Your task to perform on an android device: open app "Expedia: Hotels, Flights & Car" Image 0: 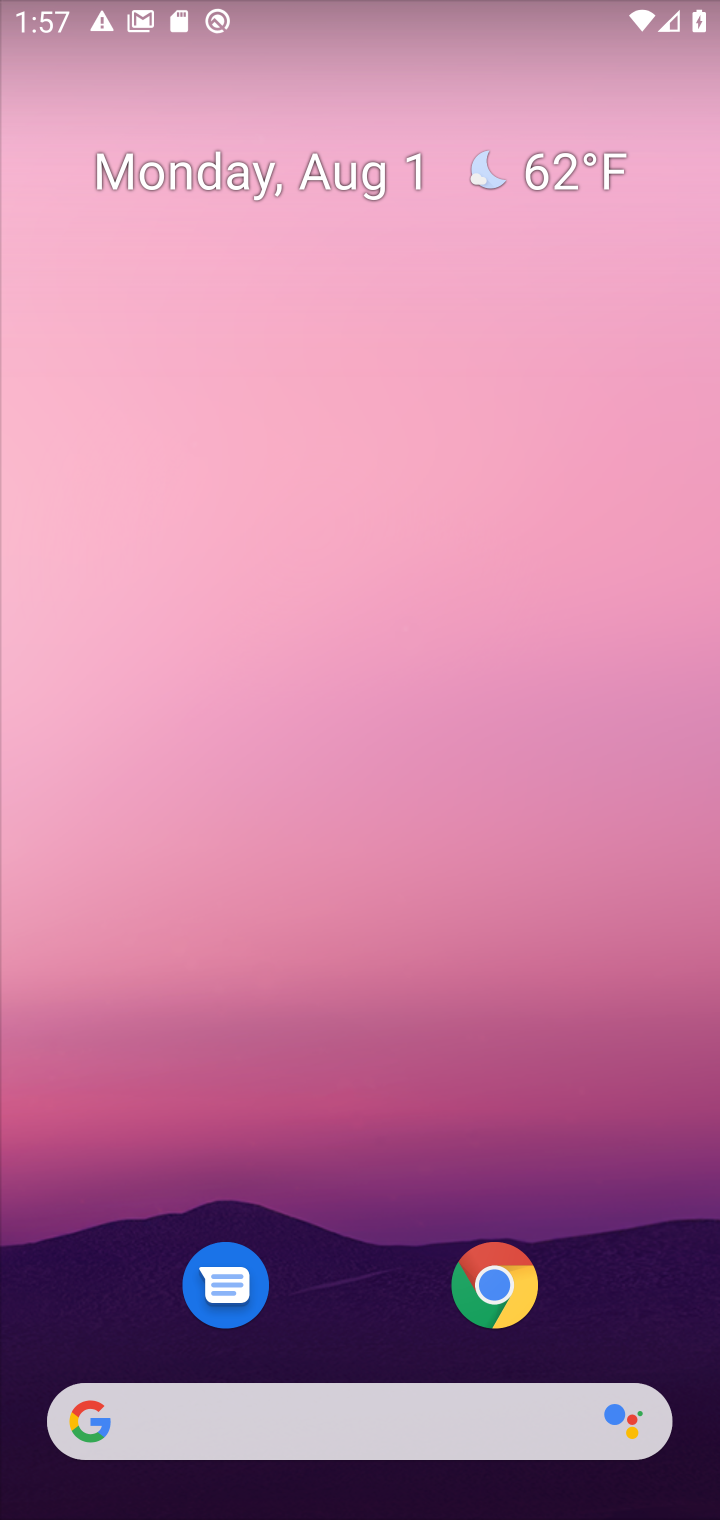
Step 0: drag from (513, 499) to (529, 400)
Your task to perform on an android device: open app "Expedia: Hotels, Flights & Car" Image 1: 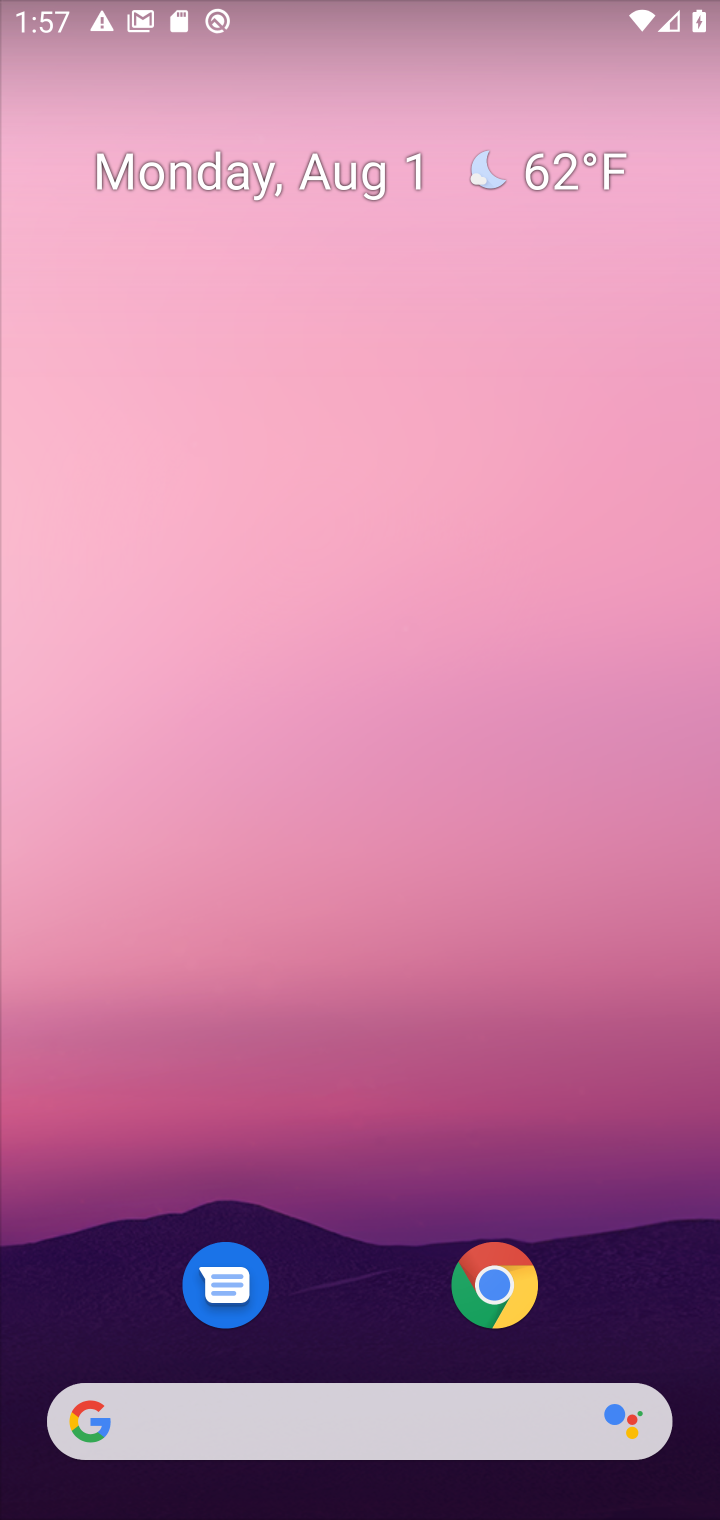
Step 1: drag from (379, 1296) to (358, 283)
Your task to perform on an android device: open app "Expedia: Hotels, Flights & Car" Image 2: 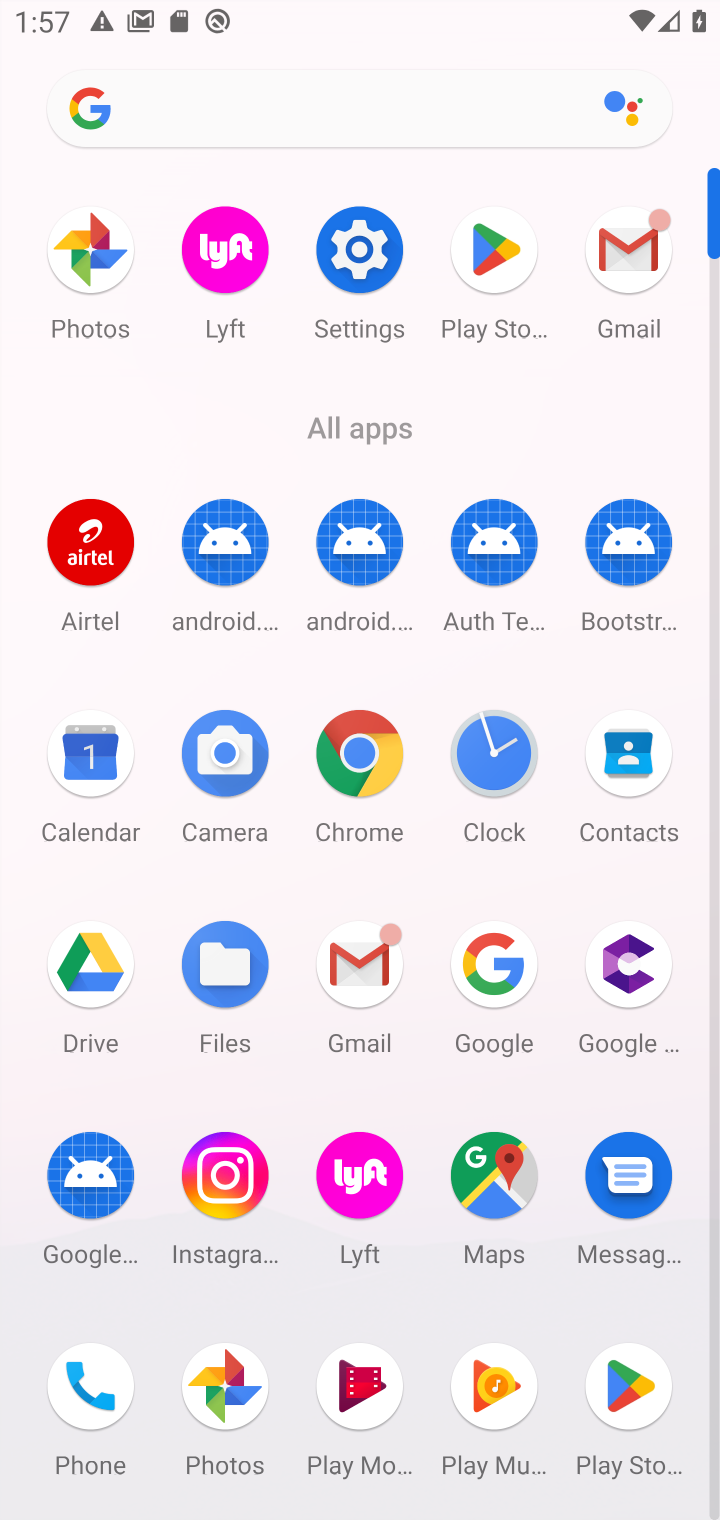
Step 2: click (483, 257)
Your task to perform on an android device: open app "Expedia: Hotels, Flights & Car" Image 3: 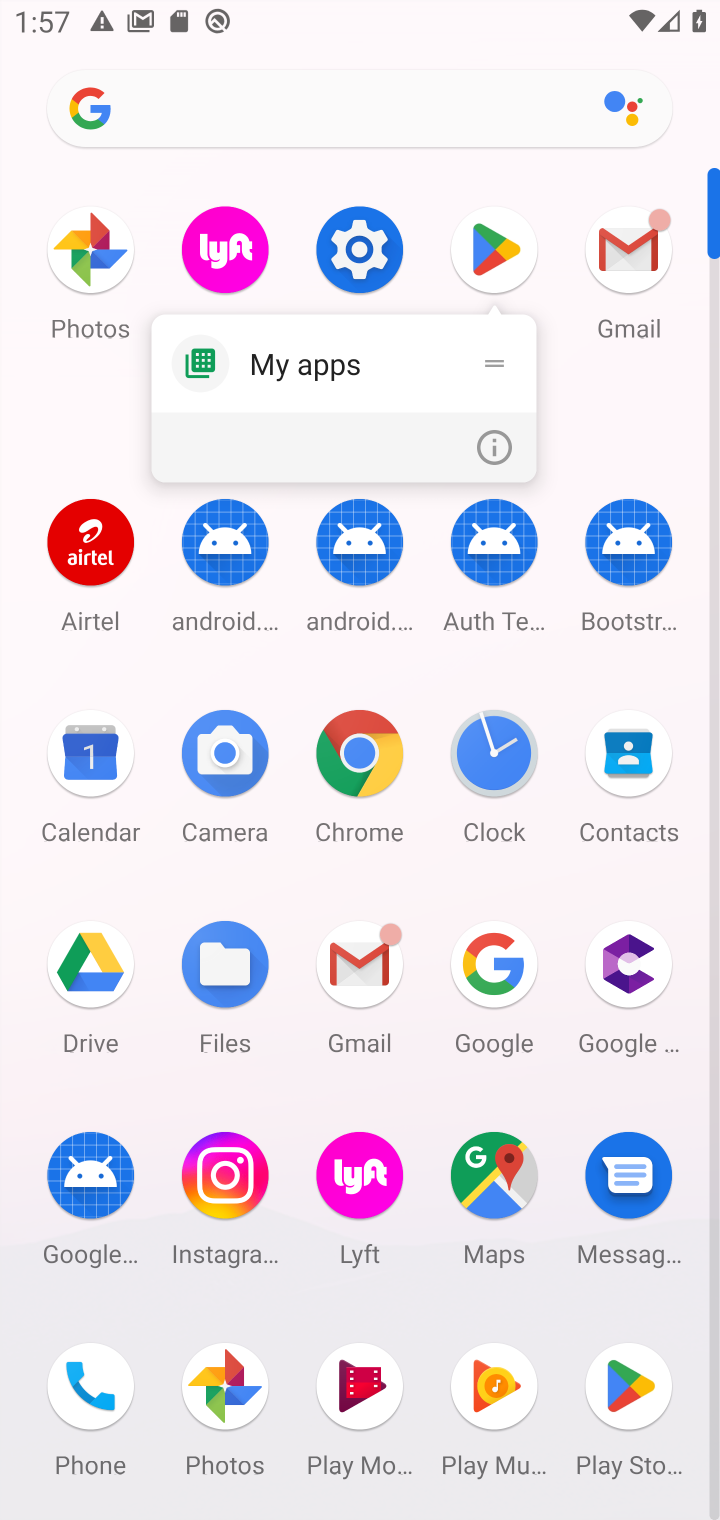
Step 3: click (487, 267)
Your task to perform on an android device: open app "Expedia: Hotels, Flights & Car" Image 4: 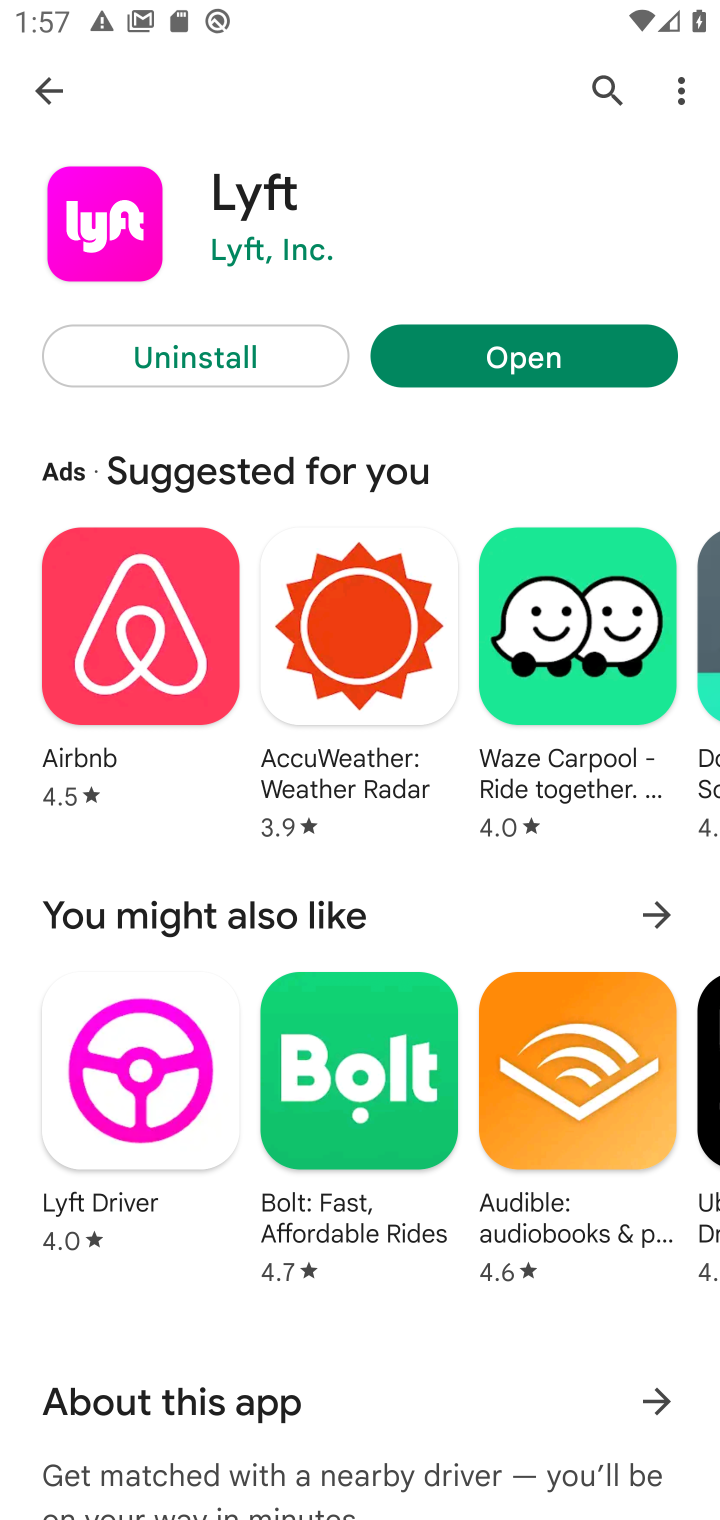
Step 4: click (599, 83)
Your task to perform on an android device: open app "Expedia: Hotels, Flights & Car" Image 5: 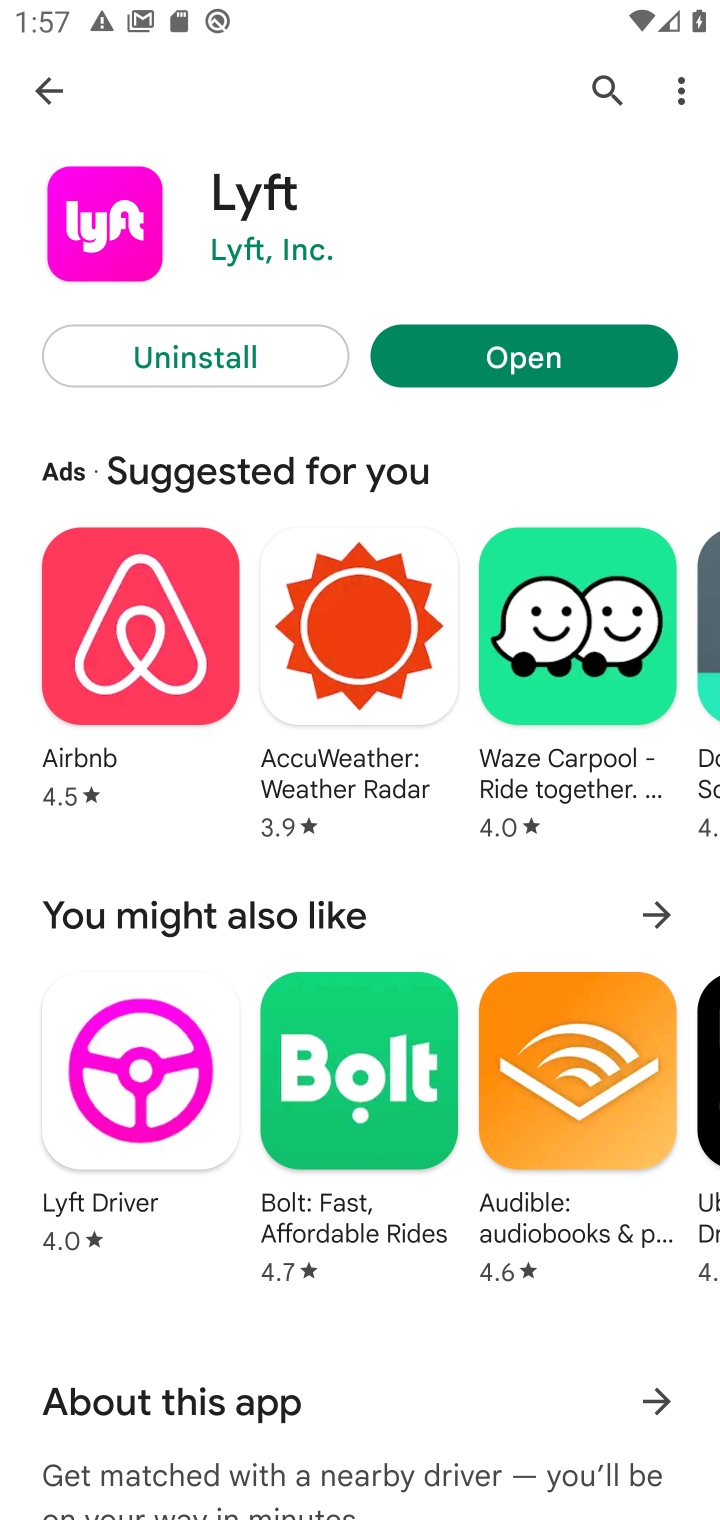
Step 5: click (600, 84)
Your task to perform on an android device: open app "Expedia: Hotels, Flights & Car" Image 6: 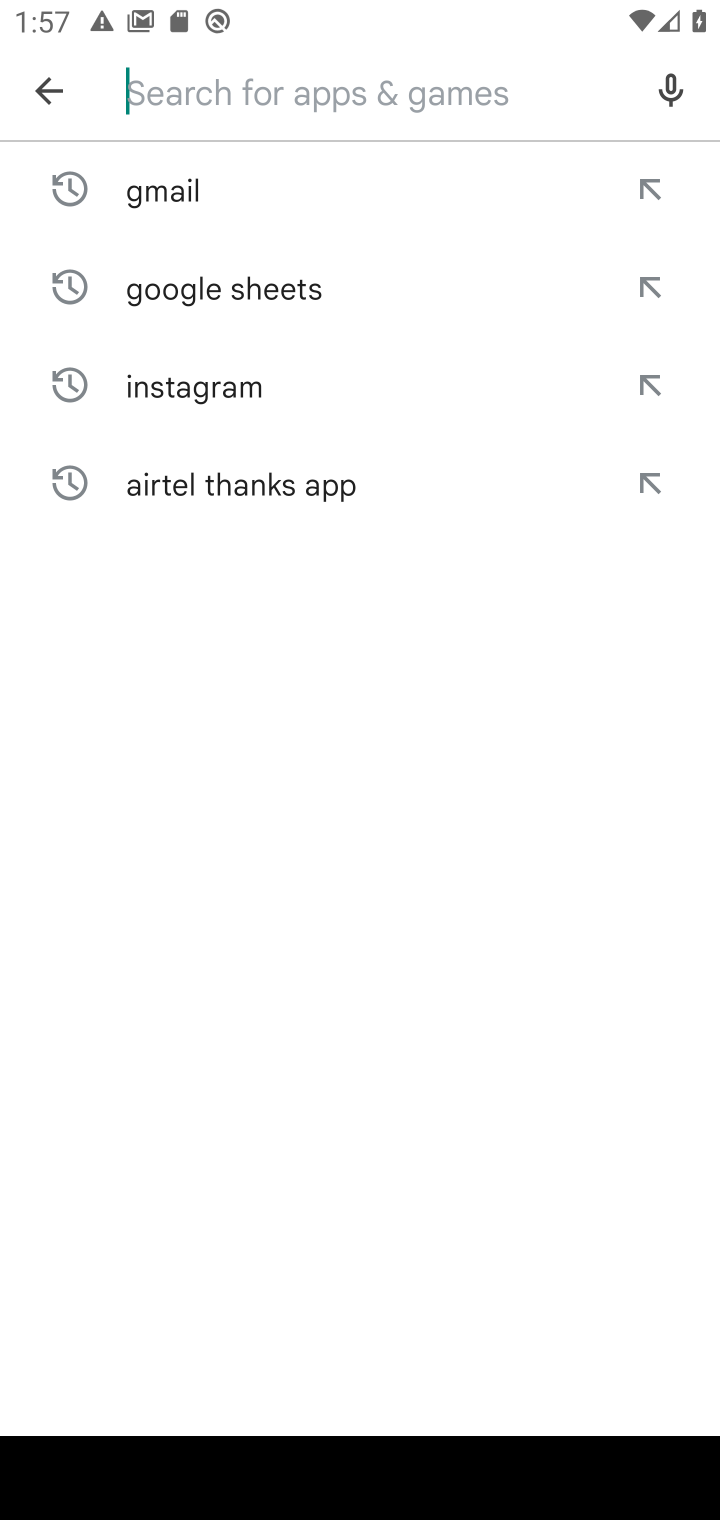
Step 6: type "Expedia: Hotels, Flights & Car"
Your task to perform on an android device: open app "Expedia: Hotels, Flights & Car" Image 7: 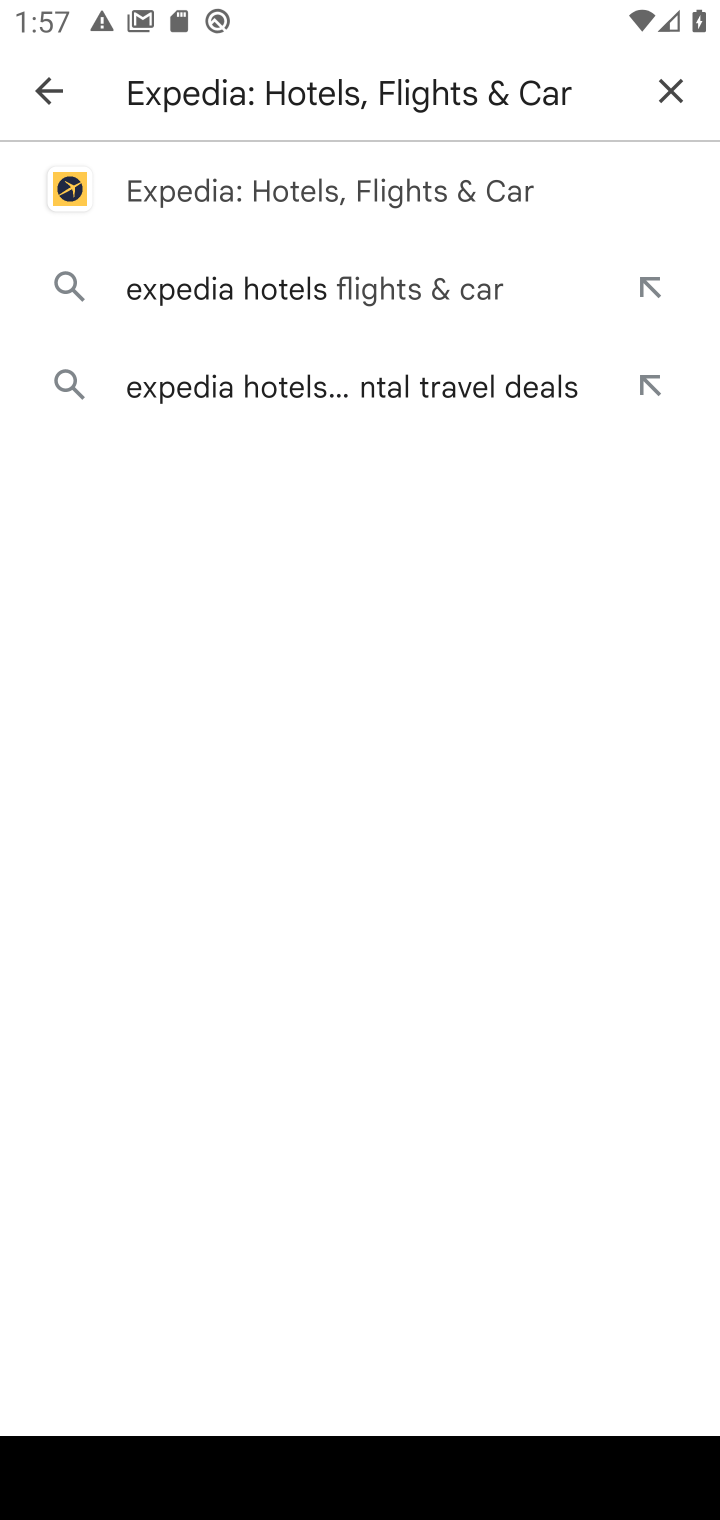
Step 7: click (236, 189)
Your task to perform on an android device: open app "Expedia: Hotels, Flights & Car" Image 8: 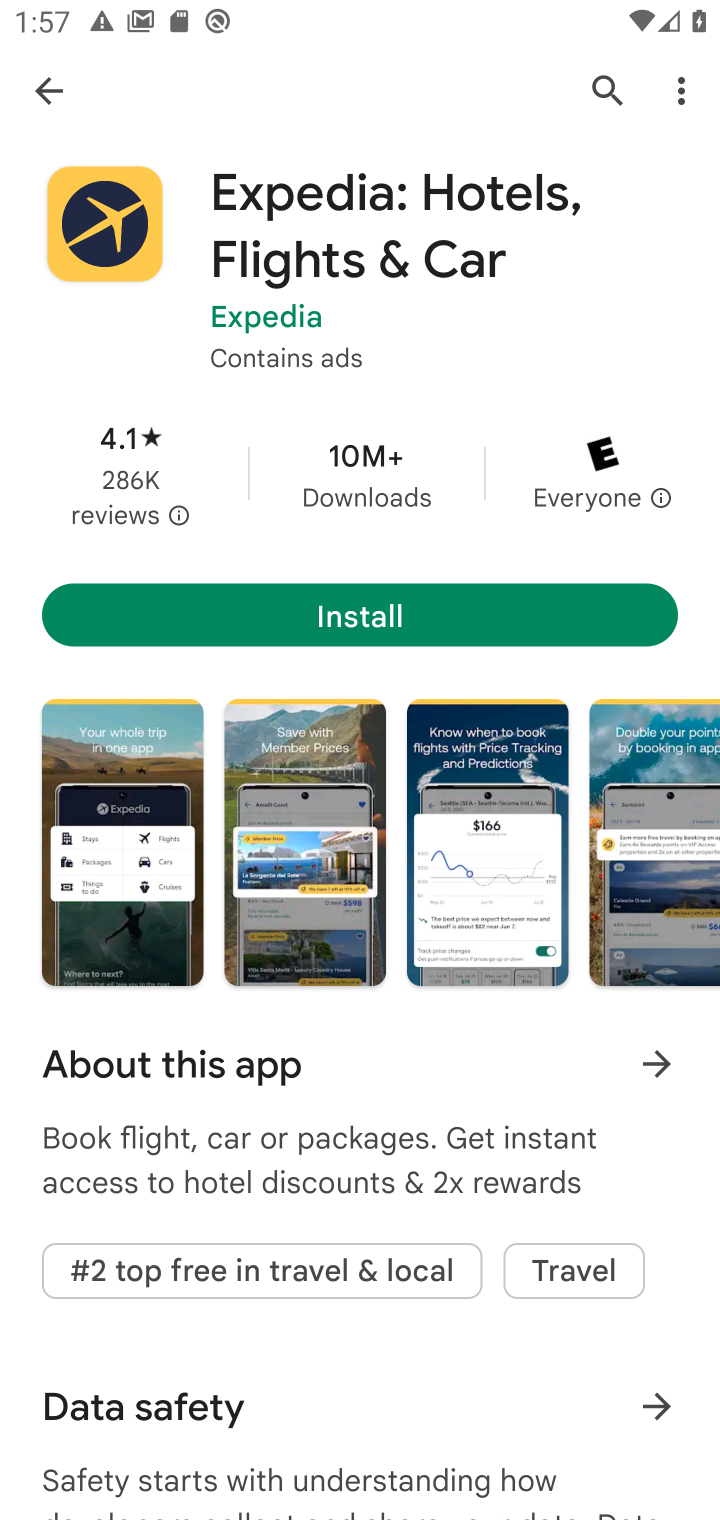
Step 8: click (340, 619)
Your task to perform on an android device: open app "Expedia: Hotels, Flights & Car" Image 9: 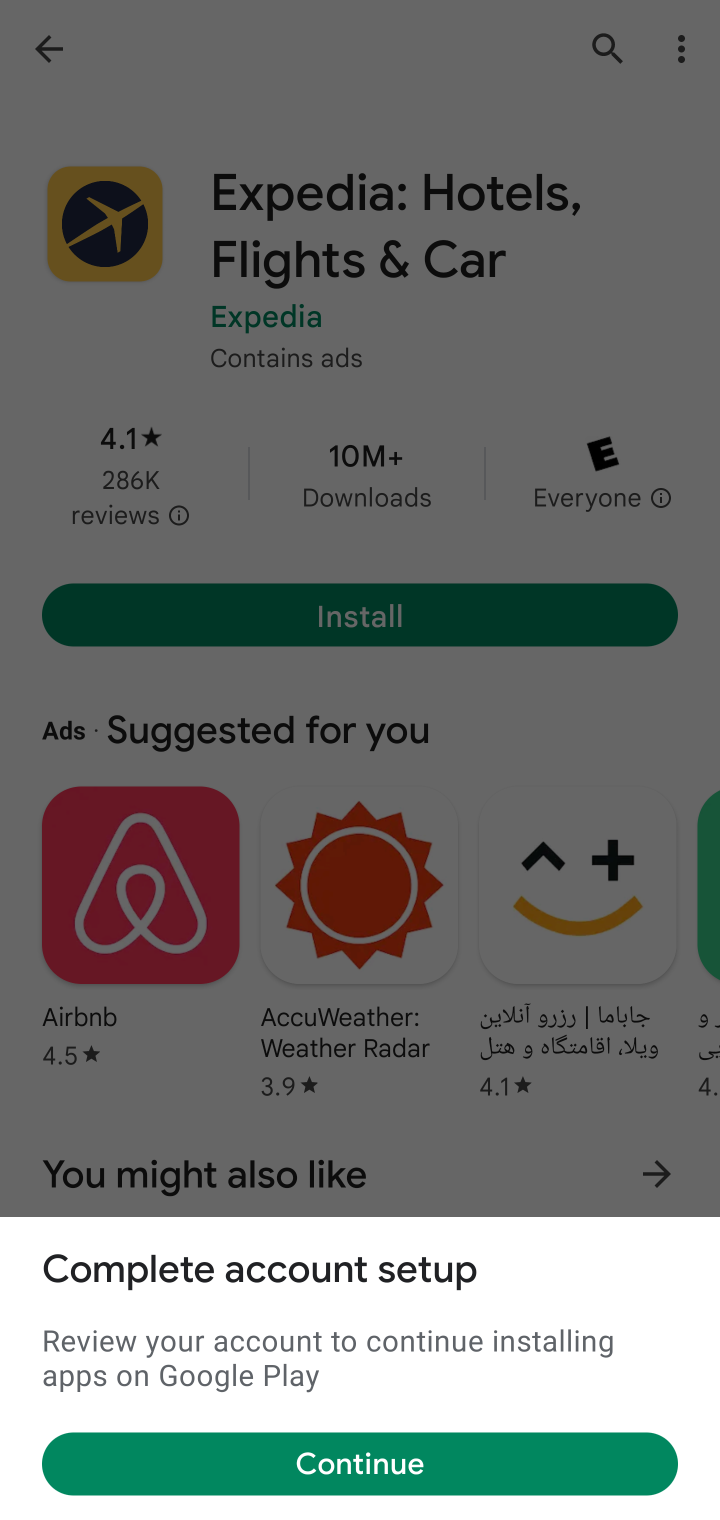
Step 9: click (377, 1467)
Your task to perform on an android device: open app "Expedia: Hotels, Flights & Car" Image 10: 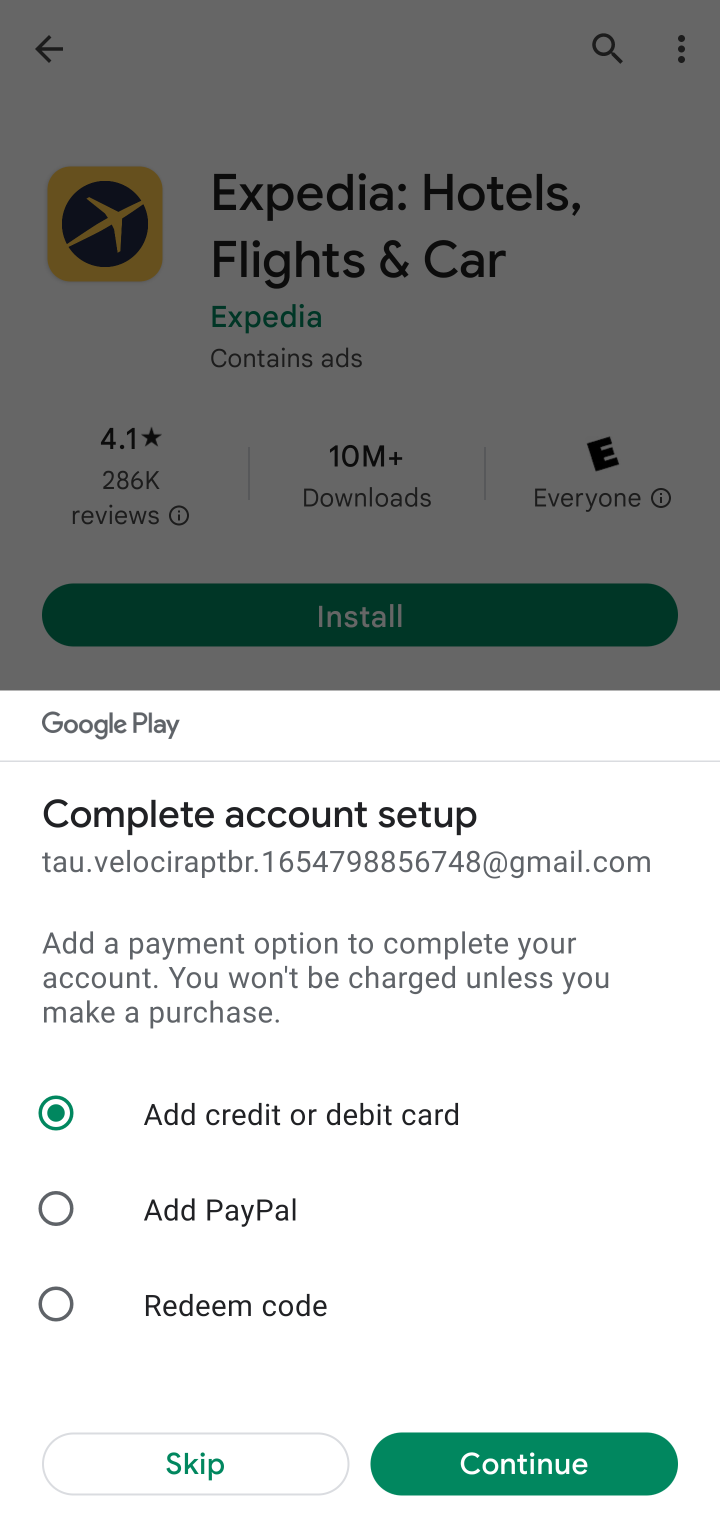
Step 10: click (236, 1472)
Your task to perform on an android device: open app "Expedia: Hotels, Flights & Car" Image 11: 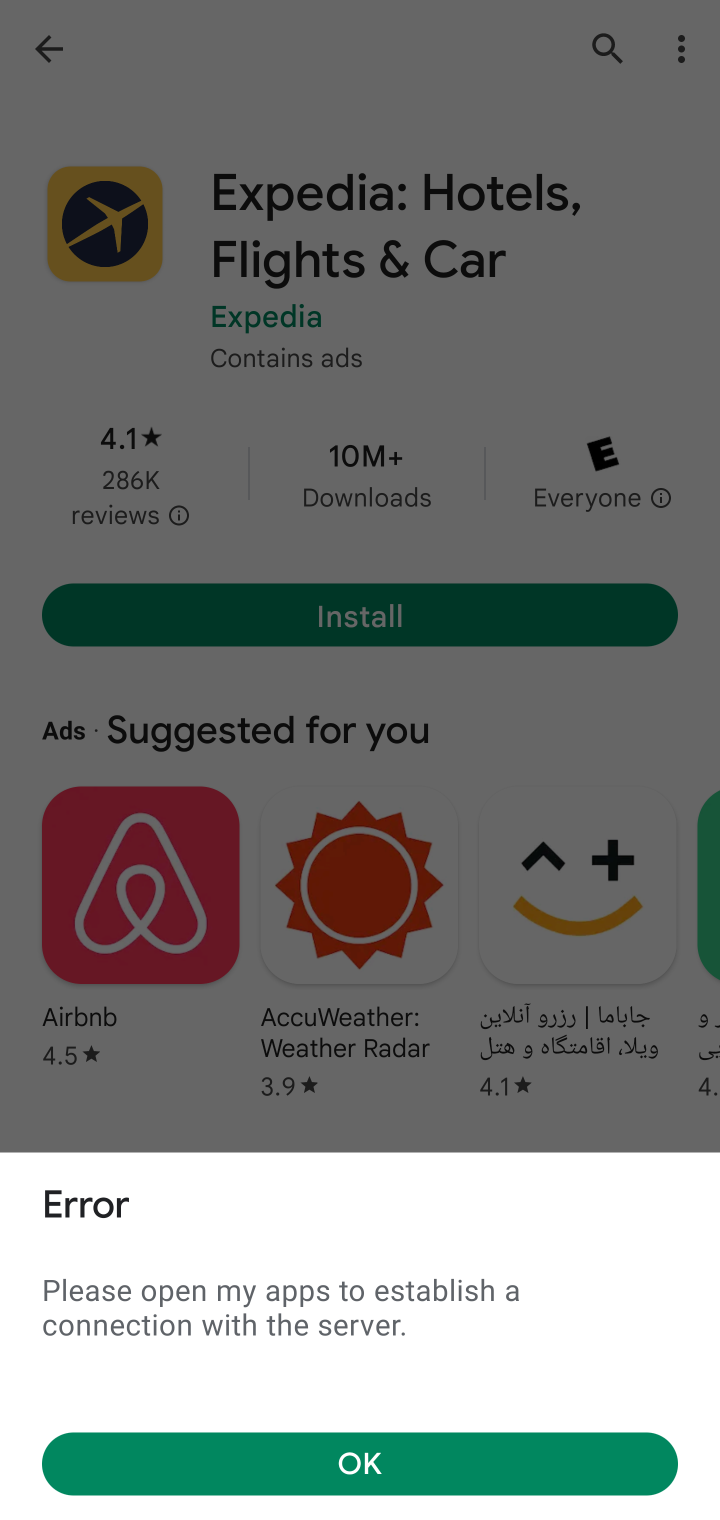
Step 11: click (360, 1466)
Your task to perform on an android device: open app "Expedia: Hotels, Flights & Car" Image 12: 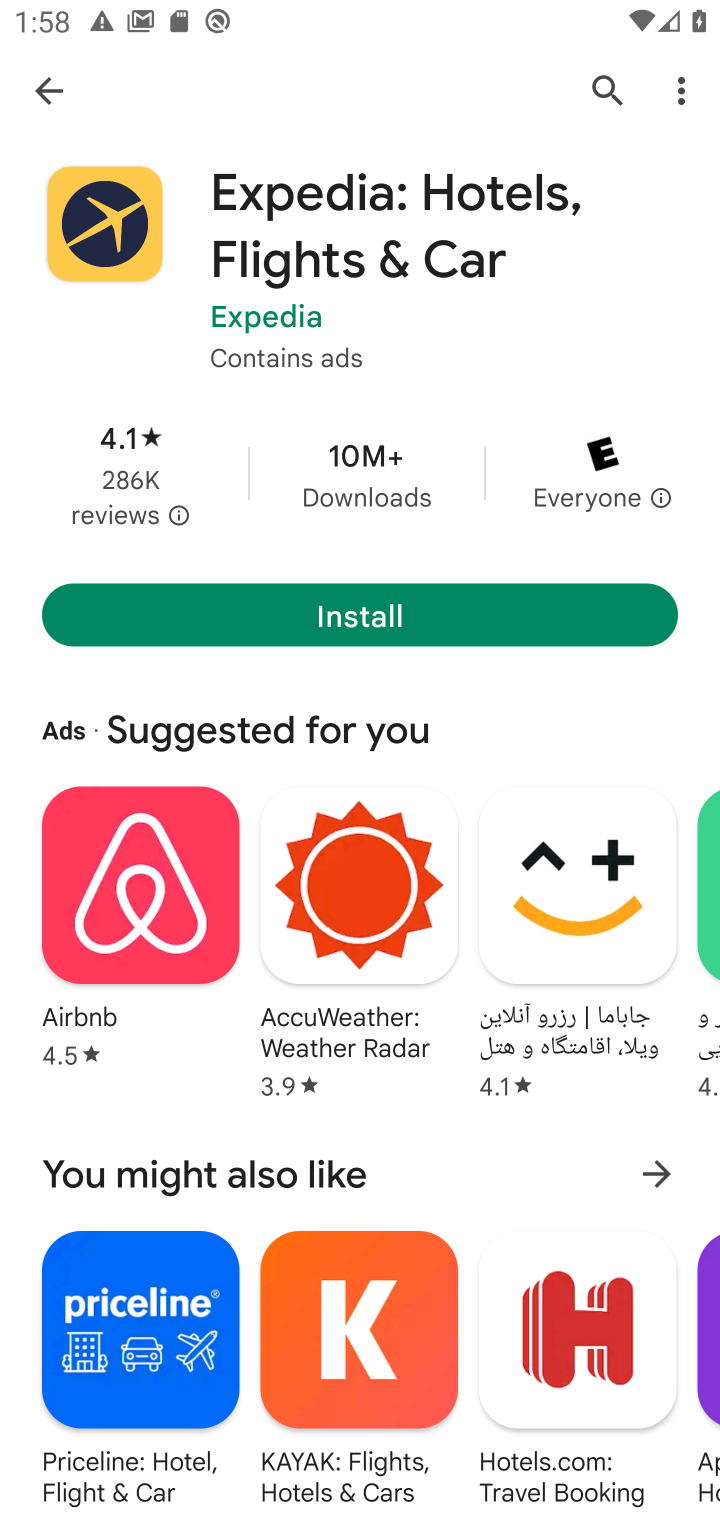
Step 12: task complete